Your task to perform on an android device: turn on improve location accuracy Image 0: 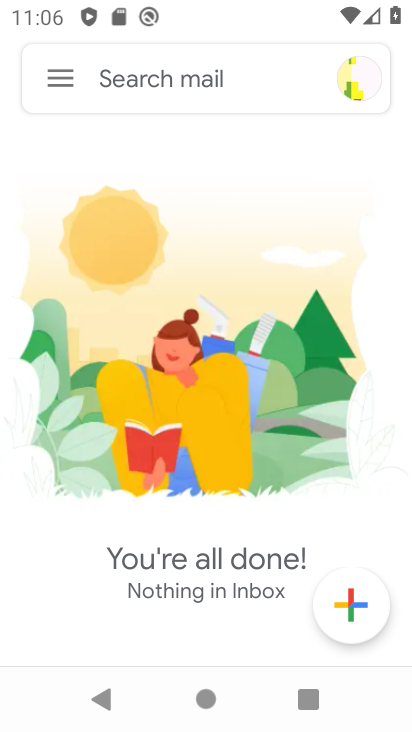
Step 0: press home button
Your task to perform on an android device: turn on improve location accuracy Image 1: 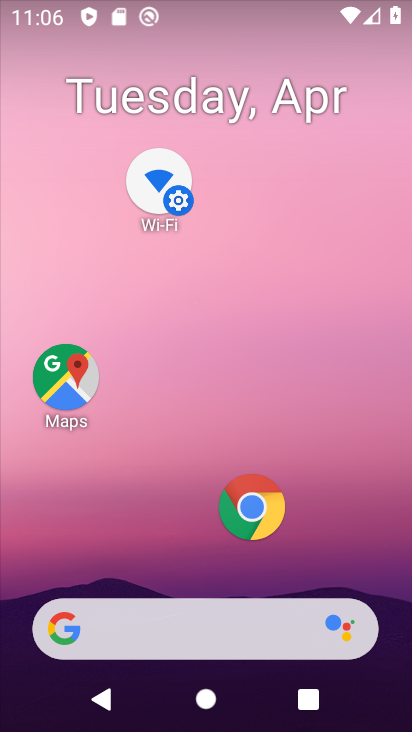
Step 1: drag from (9, 652) to (236, 257)
Your task to perform on an android device: turn on improve location accuracy Image 2: 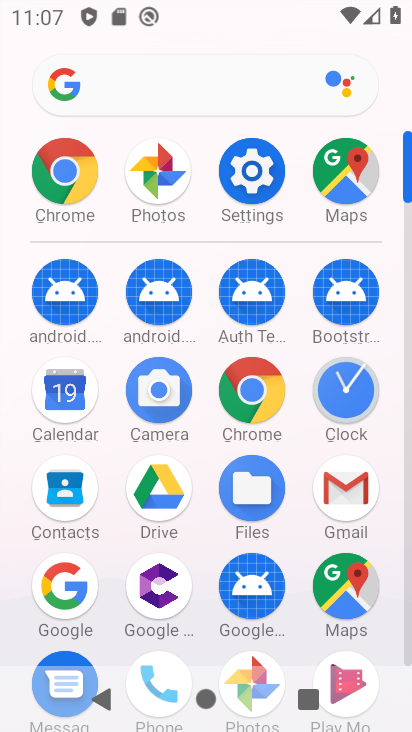
Step 2: click (254, 155)
Your task to perform on an android device: turn on improve location accuracy Image 3: 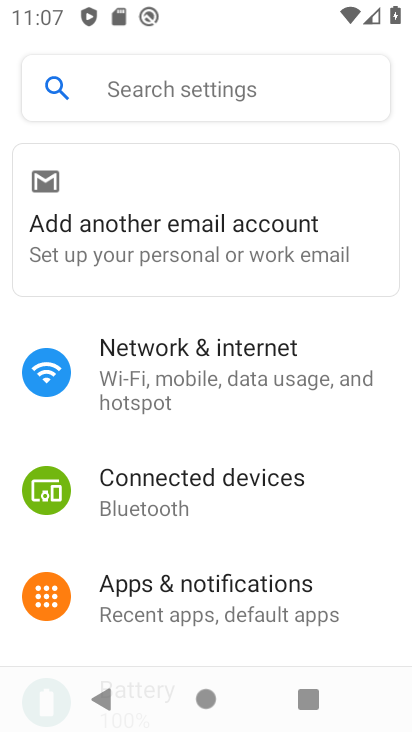
Step 3: drag from (204, 570) to (295, 245)
Your task to perform on an android device: turn on improve location accuracy Image 4: 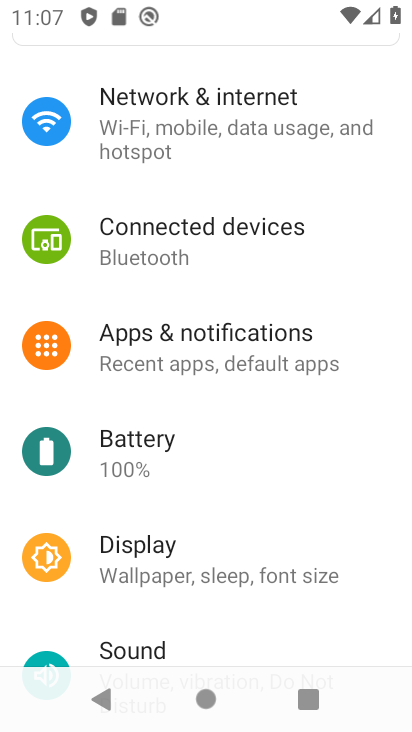
Step 4: drag from (249, 571) to (322, 286)
Your task to perform on an android device: turn on improve location accuracy Image 5: 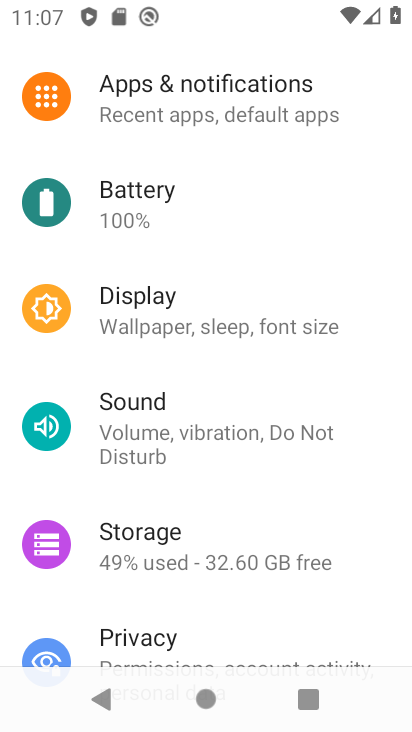
Step 5: drag from (241, 537) to (277, 401)
Your task to perform on an android device: turn on improve location accuracy Image 6: 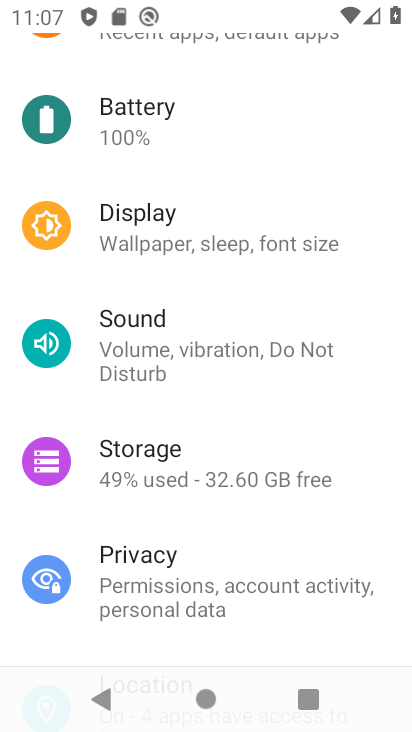
Step 6: drag from (182, 550) to (262, 183)
Your task to perform on an android device: turn on improve location accuracy Image 7: 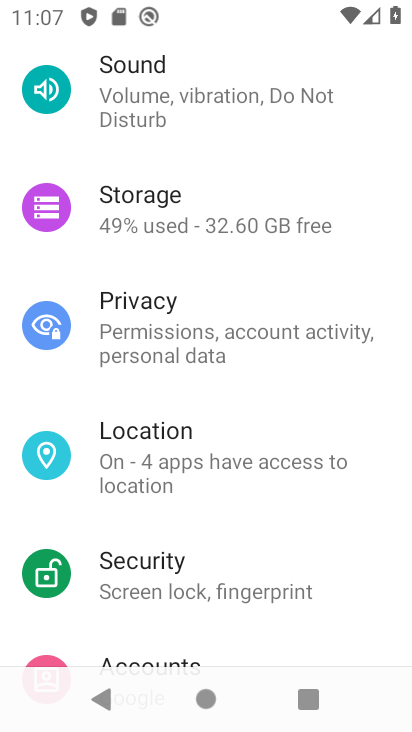
Step 7: click (194, 466)
Your task to perform on an android device: turn on improve location accuracy Image 8: 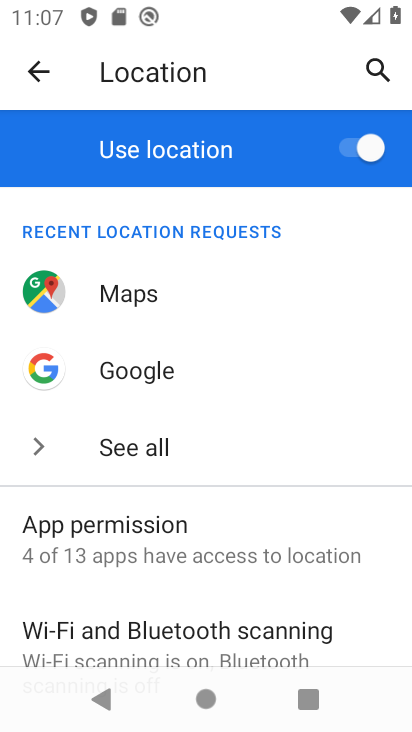
Step 8: drag from (183, 581) to (237, 213)
Your task to perform on an android device: turn on improve location accuracy Image 9: 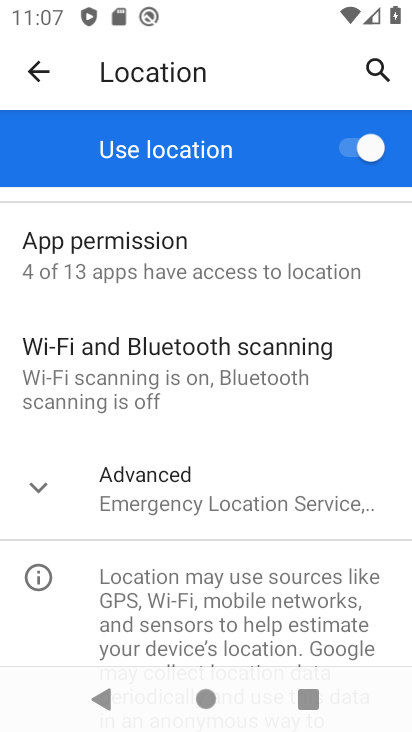
Step 9: click (271, 489)
Your task to perform on an android device: turn on improve location accuracy Image 10: 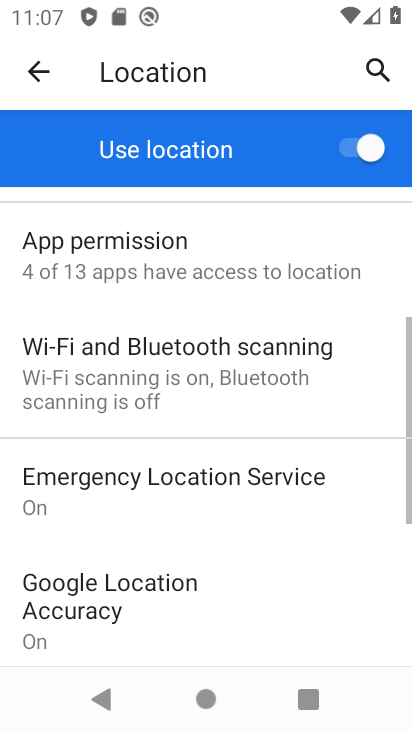
Step 10: task complete